Your task to perform on an android device: see sites visited before in the chrome app Image 0: 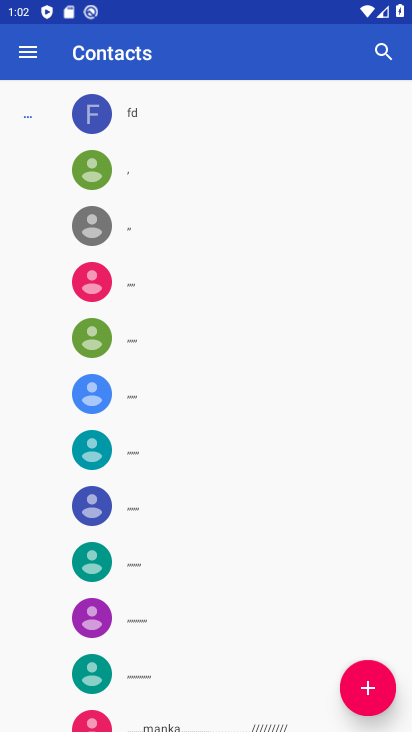
Step 0: press home button
Your task to perform on an android device: see sites visited before in the chrome app Image 1: 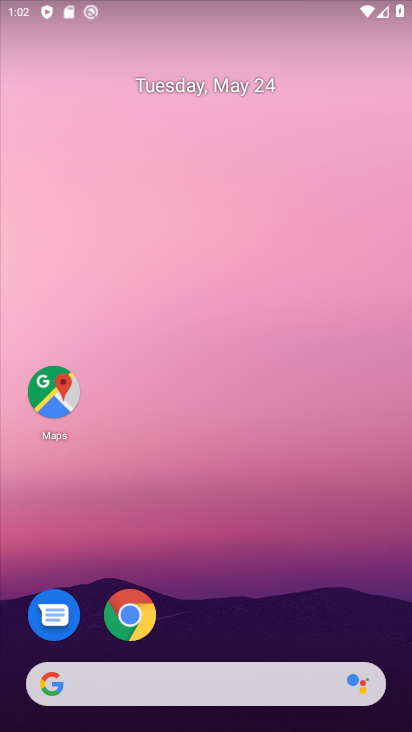
Step 1: click (129, 603)
Your task to perform on an android device: see sites visited before in the chrome app Image 2: 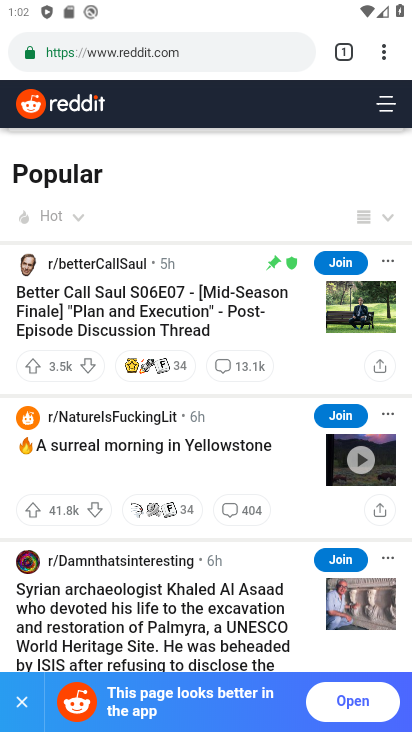
Step 2: click (386, 45)
Your task to perform on an android device: see sites visited before in the chrome app Image 3: 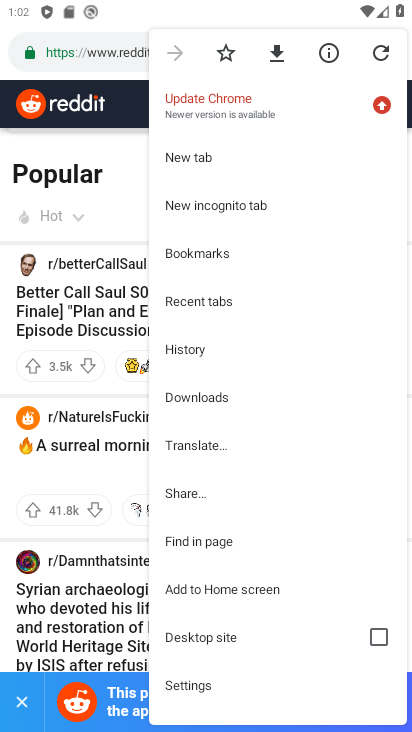
Step 3: click (216, 344)
Your task to perform on an android device: see sites visited before in the chrome app Image 4: 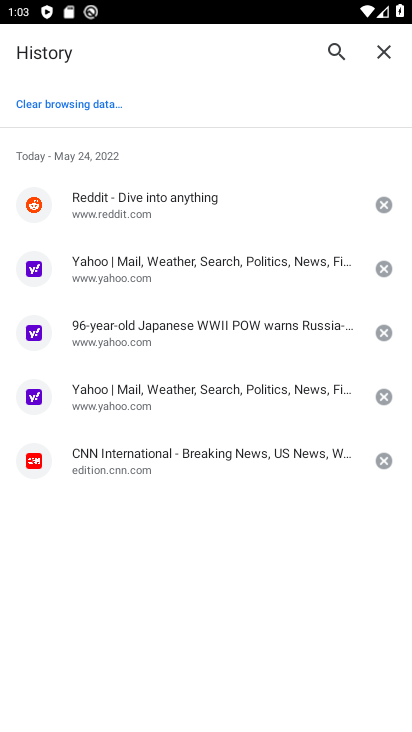
Step 4: task complete